Your task to perform on an android device: Look up the best rated gaming chairs on Target. Image 0: 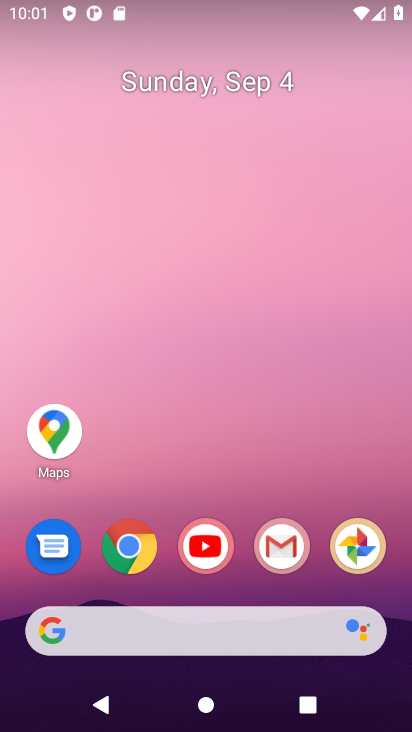
Step 0: click (136, 546)
Your task to perform on an android device: Look up the best rated gaming chairs on Target. Image 1: 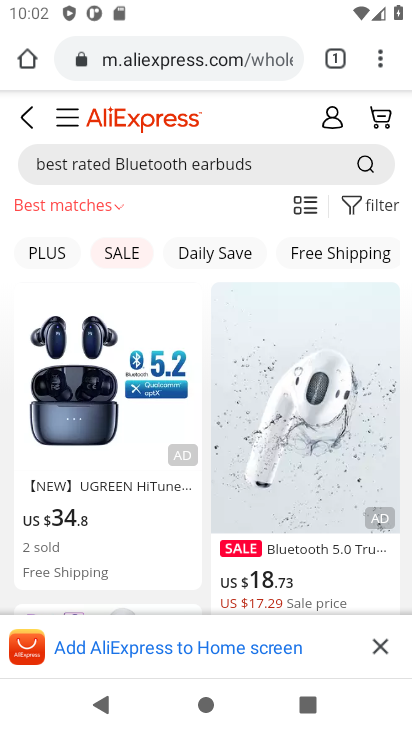
Step 1: click (140, 55)
Your task to perform on an android device: Look up the best rated gaming chairs on Target. Image 2: 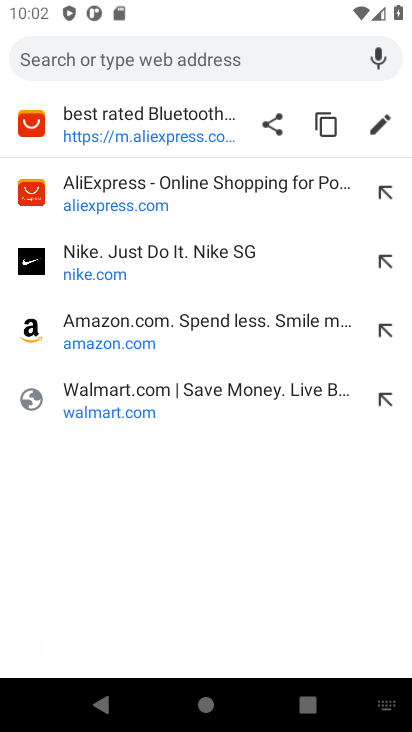
Step 2: type " Target."
Your task to perform on an android device: Look up the best rated gaming chairs on Target. Image 3: 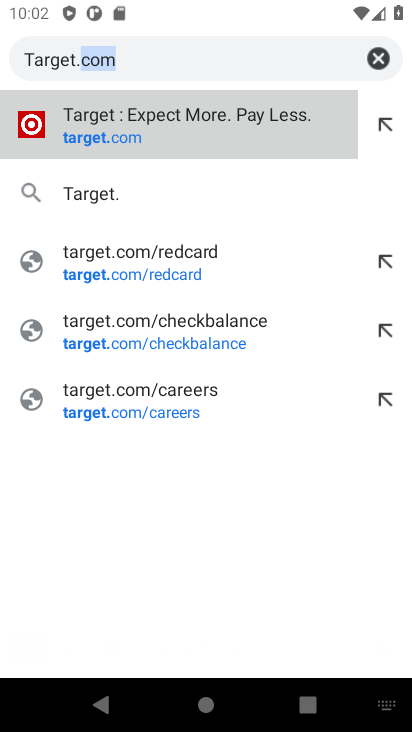
Step 3: click (91, 140)
Your task to perform on an android device: Look up the best rated gaming chairs on Target. Image 4: 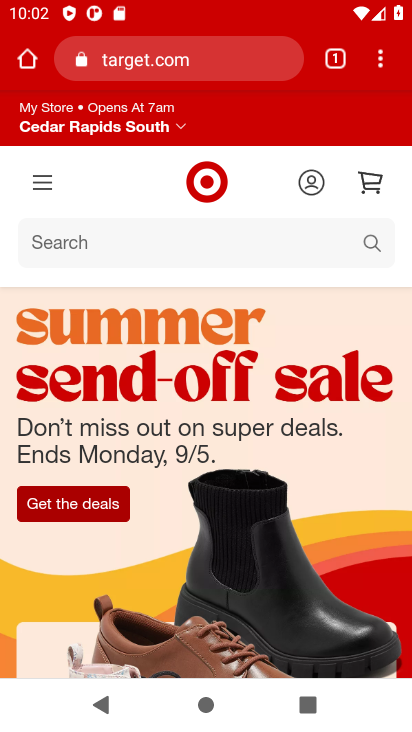
Step 4: click (371, 250)
Your task to perform on an android device: Look up the best rated gaming chairs on Target. Image 5: 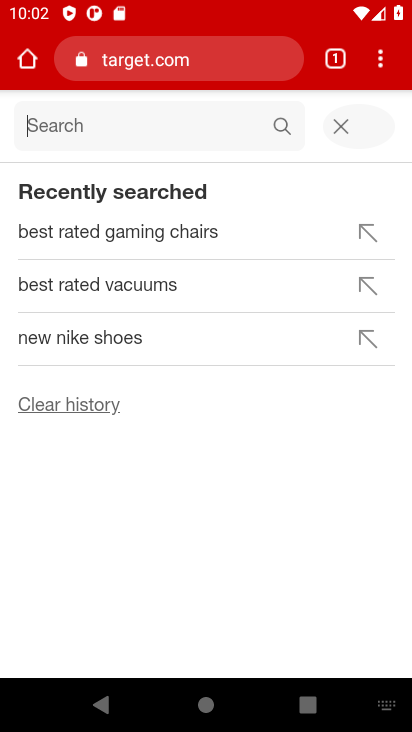
Step 5: type "best rated gaming chairs"
Your task to perform on an android device: Look up the best rated gaming chairs on Target. Image 6: 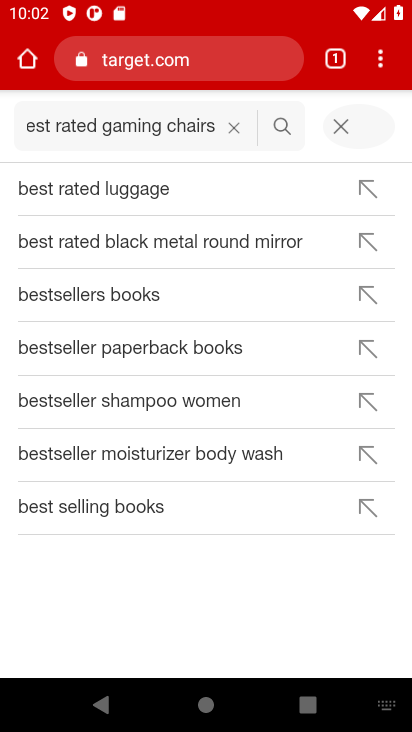
Step 6: click (284, 128)
Your task to perform on an android device: Look up the best rated gaming chairs on Target. Image 7: 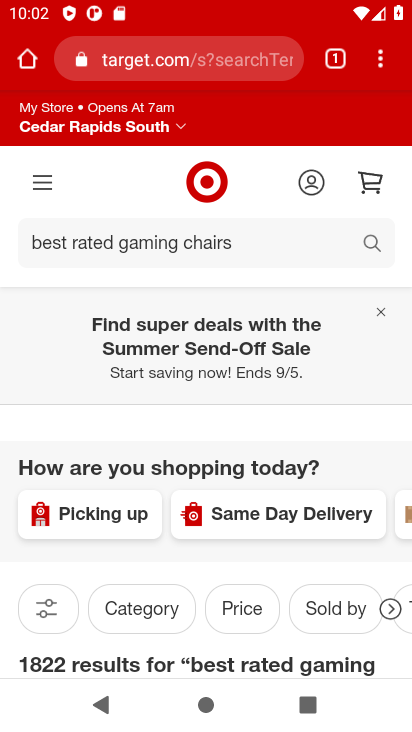
Step 7: task complete